Your task to perform on an android device: change the upload size in google photos Image 0: 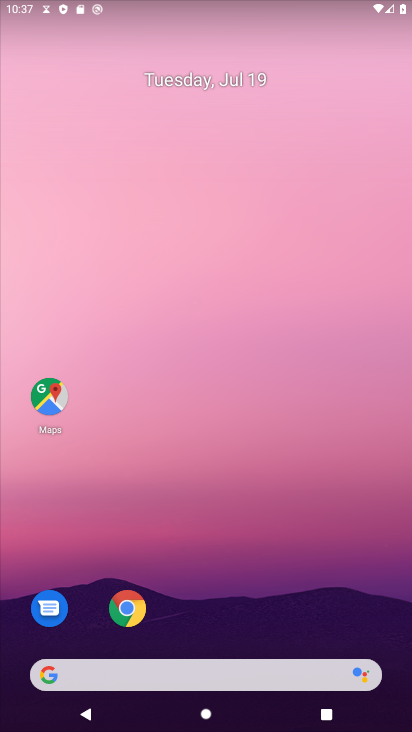
Step 0: drag from (274, 616) to (276, 194)
Your task to perform on an android device: change the upload size in google photos Image 1: 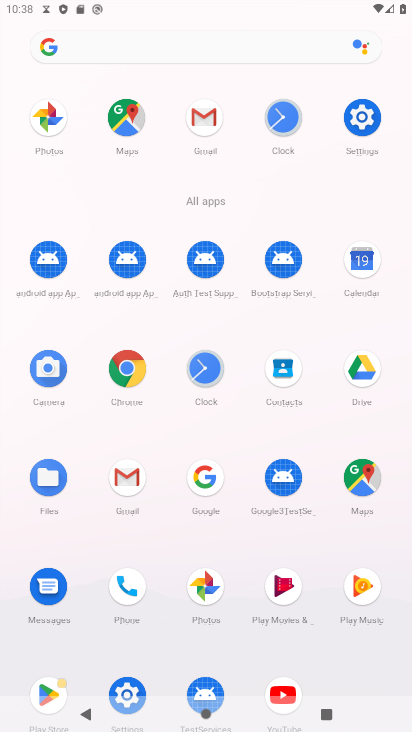
Step 1: click (209, 594)
Your task to perform on an android device: change the upload size in google photos Image 2: 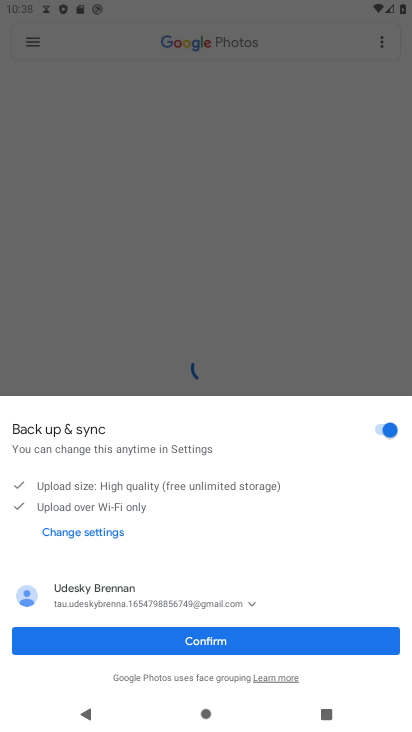
Step 2: click (194, 634)
Your task to perform on an android device: change the upload size in google photos Image 3: 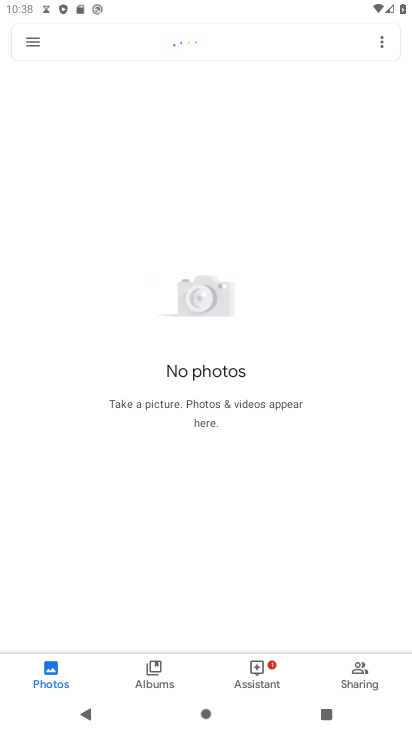
Step 3: click (25, 47)
Your task to perform on an android device: change the upload size in google photos Image 4: 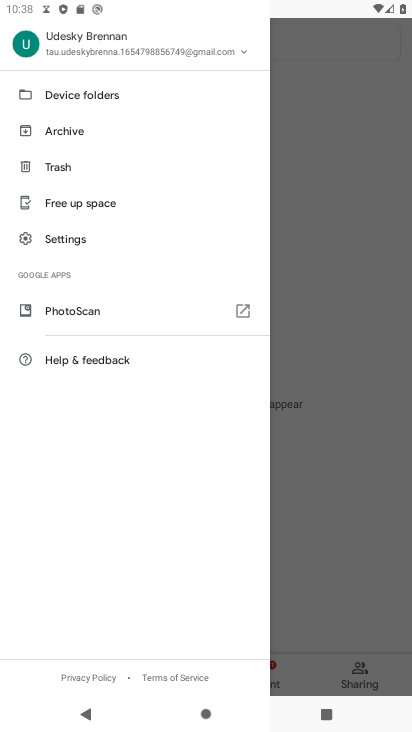
Step 4: click (92, 241)
Your task to perform on an android device: change the upload size in google photos Image 5: 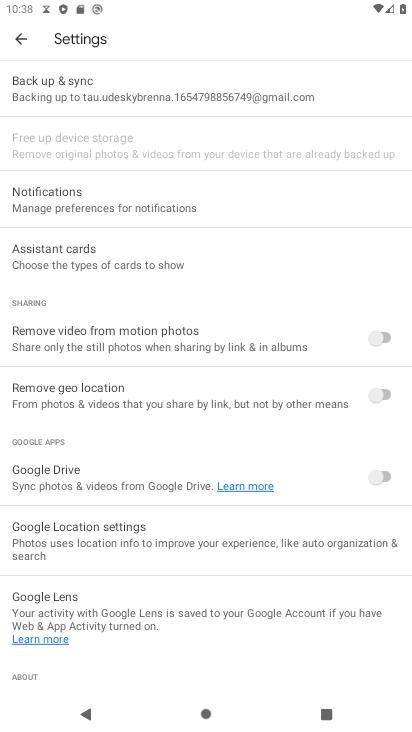
Step 5: click (143, 99)
Your task to perform on an android device: change the upload size in google photos Image 6: 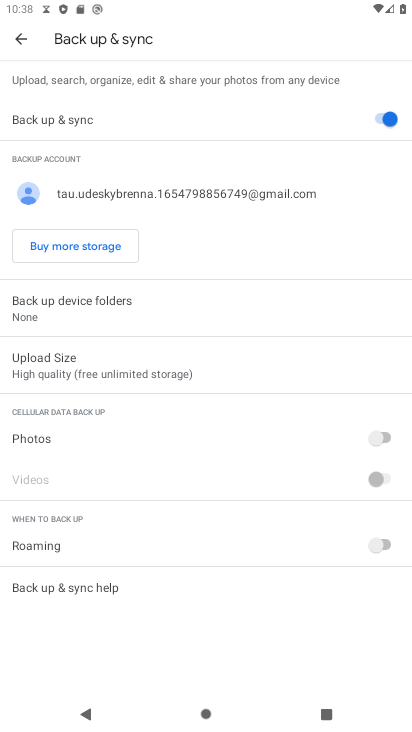
Step 6: click (109, 363)
Your task to perform on an android device: change the upload size in google photos Image 7: 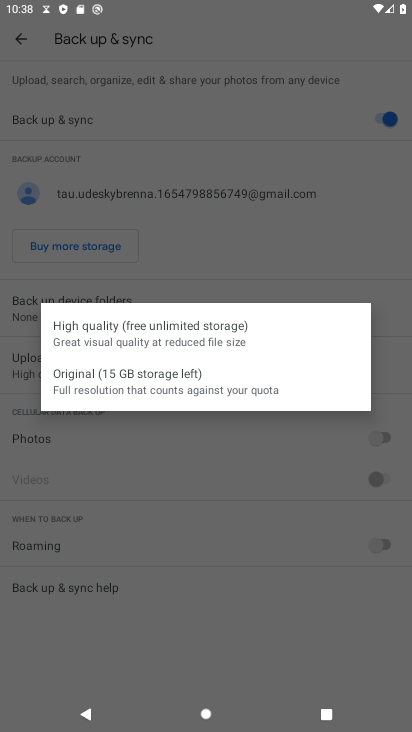
Step 7: click (100, 377)
Your task to perform on an android device: change the upload size in google photos Image 8: 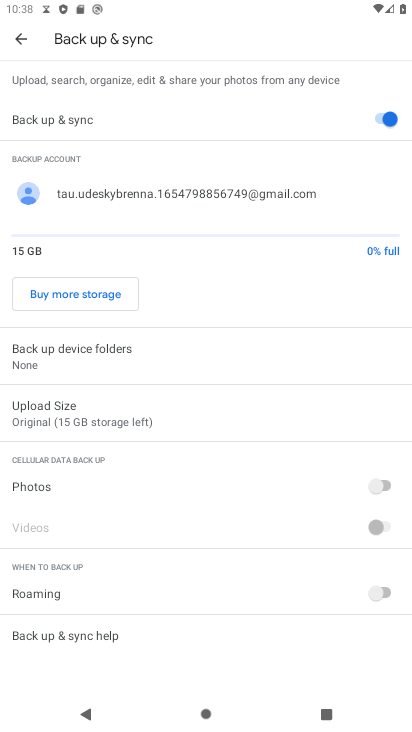
Step 8: task complete